Your task to perform on an android device: snooze an email in the gmail app Image 0: 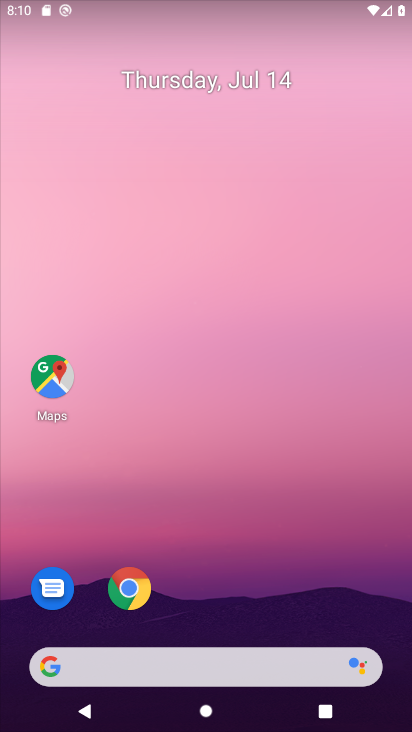
Step 0: drag from (354, 595) to (400, 61)
Your task to perform on an android device: snooze an email in the gmail app Image 1: 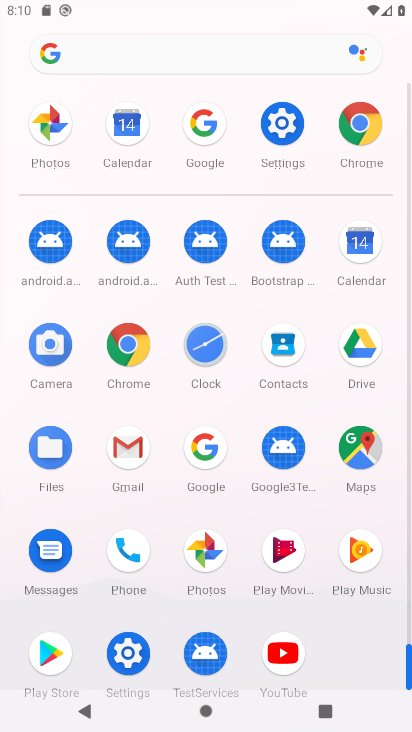
Step 1: click (129, 448)
Your task to perform on an android device: snooze an email in the gmail app Image 2: 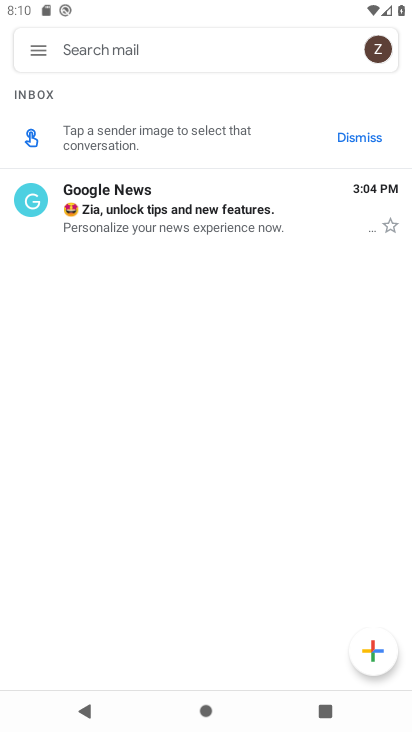
Step 2: click (38, 53)
Your task to perform on an android device: snooze an email in the gmail app Image 3: 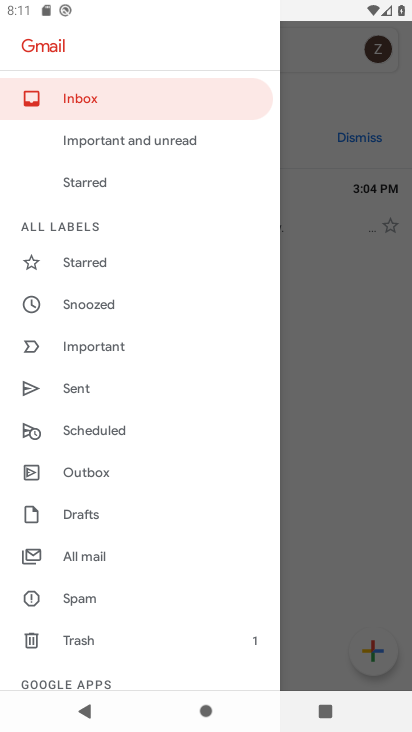
Step 3: click (102, 301)
Your task to perform on an android device: snooze an email in the gmail app Image 4: 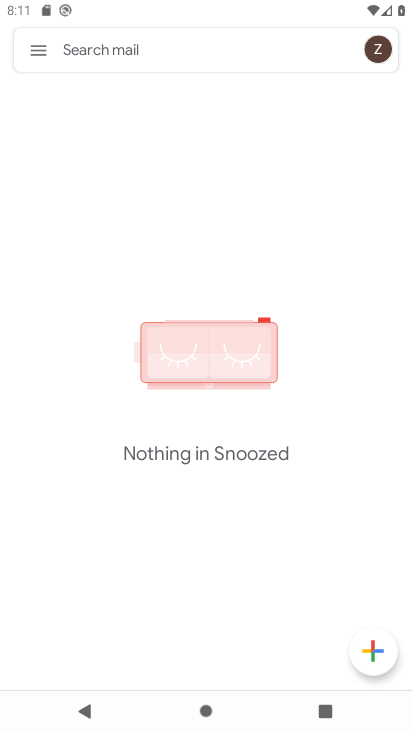
Step 4: task complete